Your task to perform on an android device: Open Youtube and go to "Your channel" Image 0: 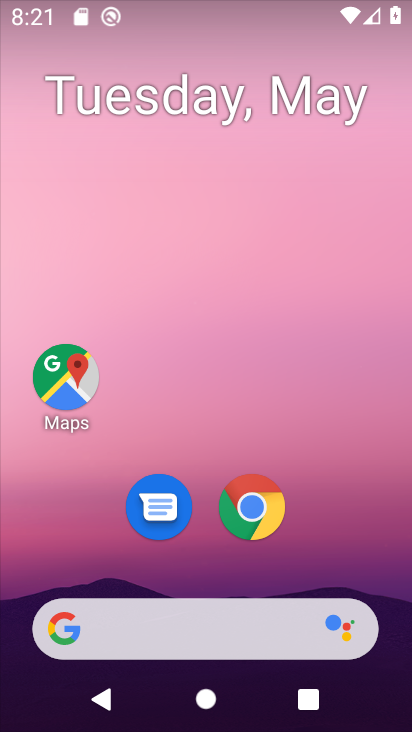
Step 0: drag from (402, 602) to (382, 169)
Your task to perform on an android device: Open Youtube and go to "Your channel" Image 1: 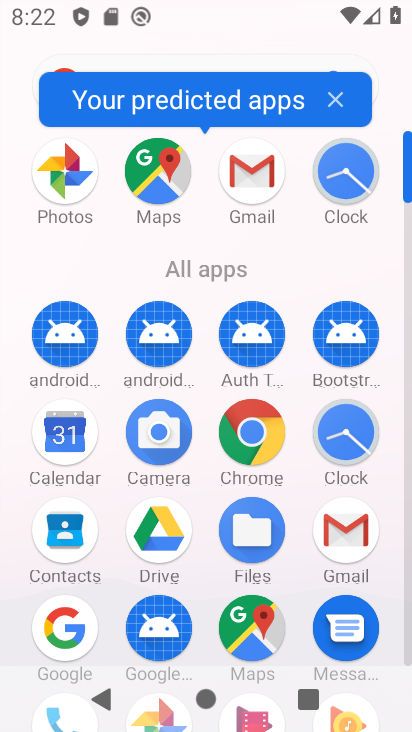
Step 1: click (408, 641)
Your task to perform on an android device: Open Youtube and go to "Your channel" Image 2: 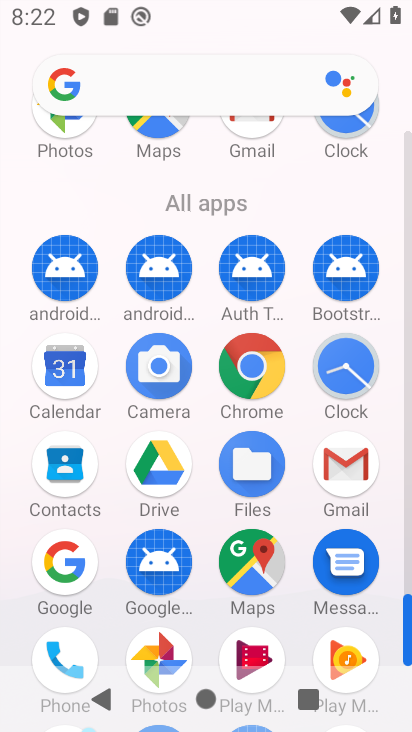
Step 2: drag from (394, 622) to (392, 447)
Your task to perform on an android device: Open Youtube and go to "Your channel" Image 3: 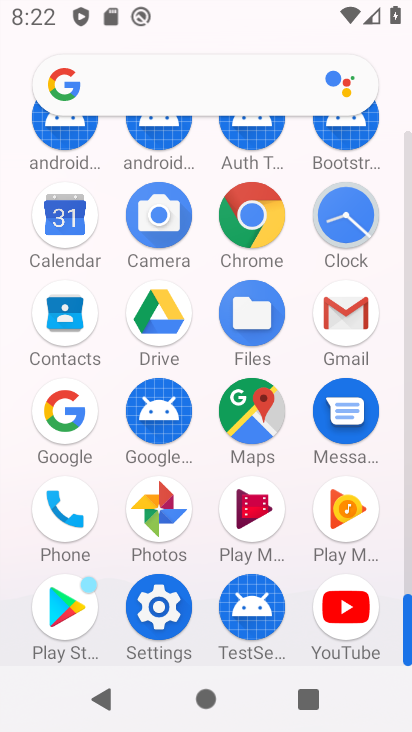
Step 3: click (366, 611)
Your task to perform on an android device: Open Youtube and go to "Your channel" Image 4: 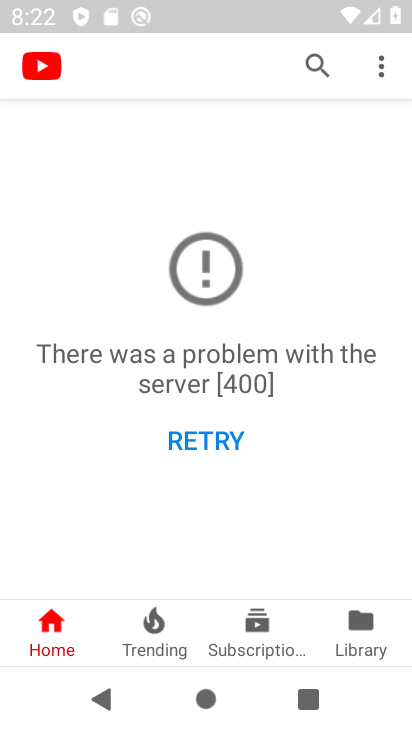
Step 4: task complete